Your task to perform on an android device: delete location history Image 0: 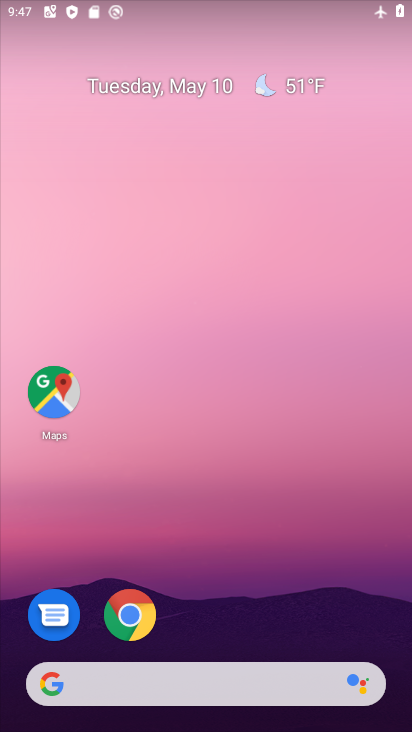
Step 0: drag from (258, 590) to (217, 111)
Your task to perform on an android device: delete location history Image 1: 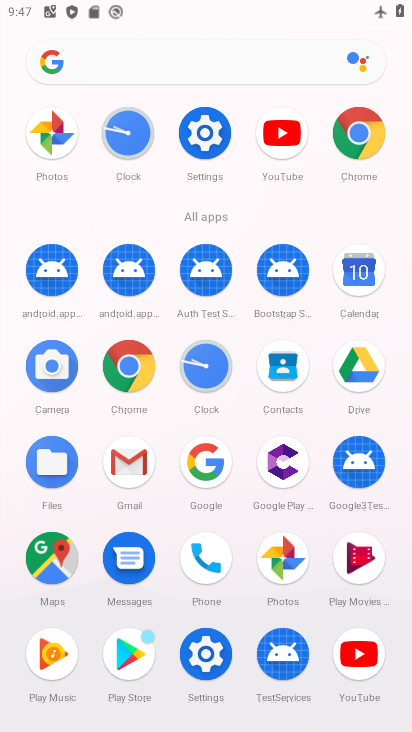
Step 1: click (205, 137)
Your task to perform on an android device: delete location history Image 2: 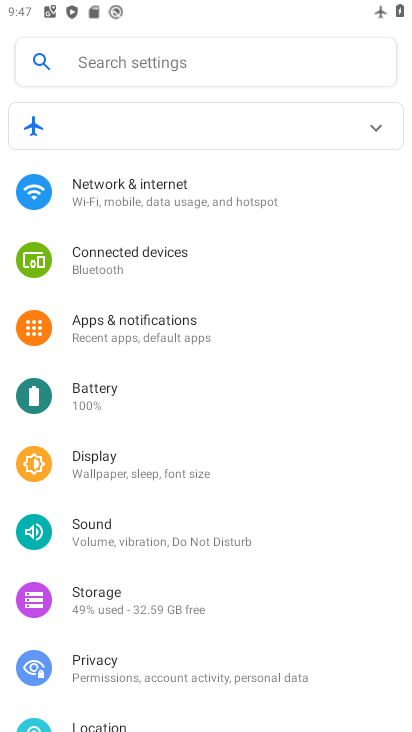
Step 2: drag from (186, 660) to (187, 300)
Your task to perform on an android device: delete location history Image 3: 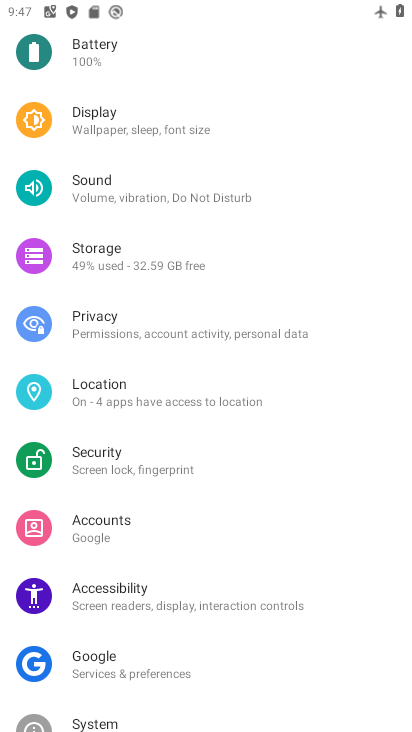
Step 3: click (123, 382)
Your task to perform on an android device: delete location history Image 4: 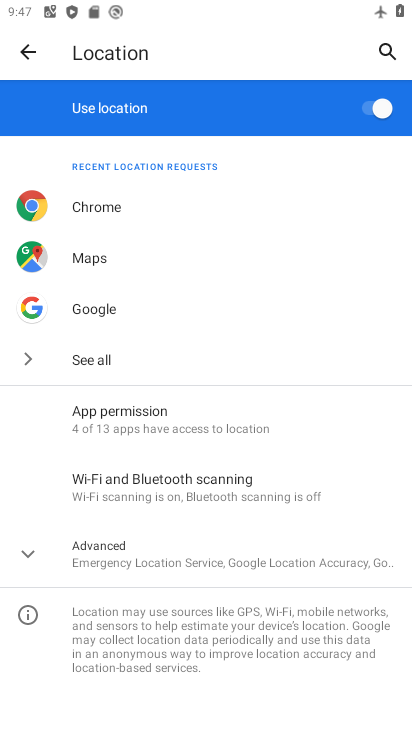
Step 4: drag from (170, 531) to (169, 288)
Your task to perform on an android device: delete location history Image 5: 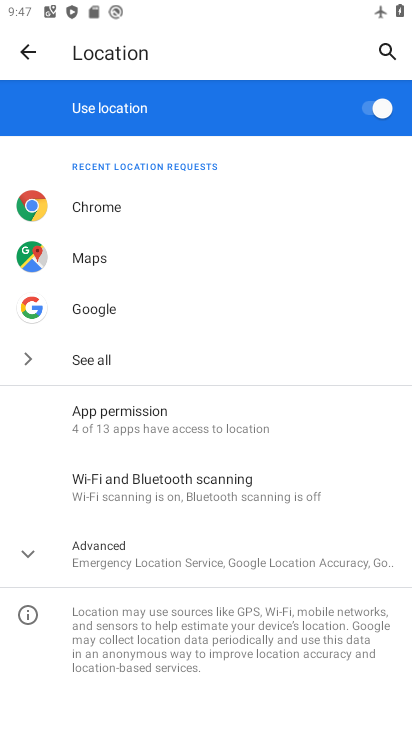
Step 5: click (146, 547)
Your task to perform on an android device: delete location history Image 6: 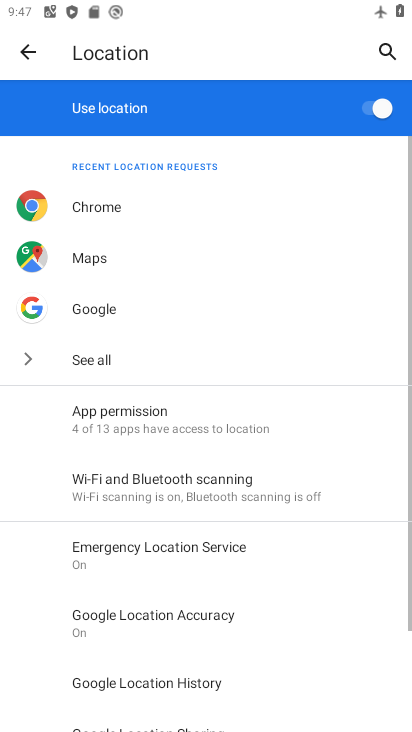
Step 6: drag from (177, 589) to (190, 205)
Your task to perform on an android device: delete location history Image 7: 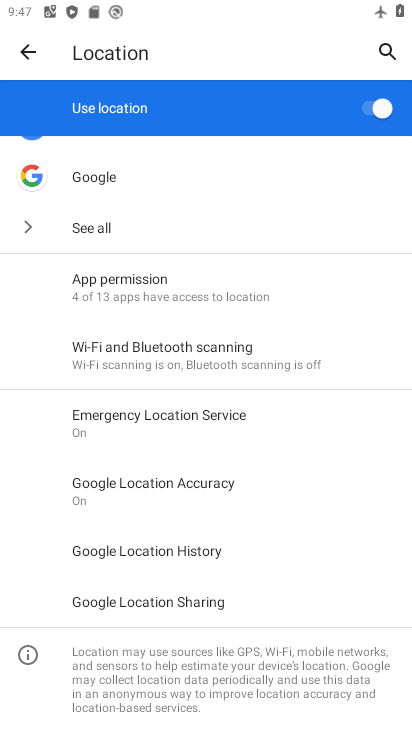
Step 7: click (183, 556)
Your task to perform on an android device: delete location history Image 8: 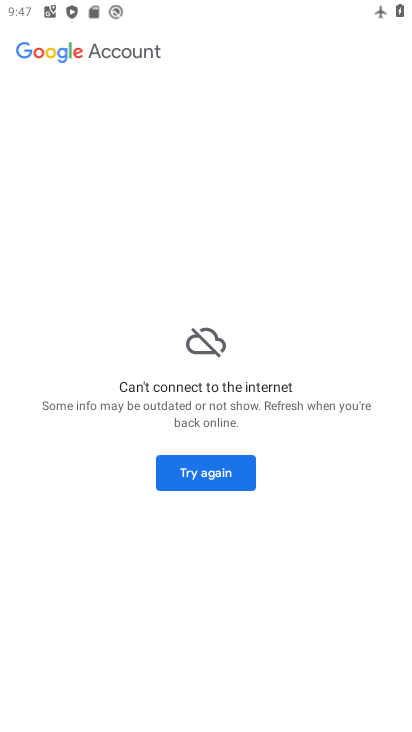
Step 8: task complete